Your task to perform on an android device: Show me popular games on the Play Store Image 0: 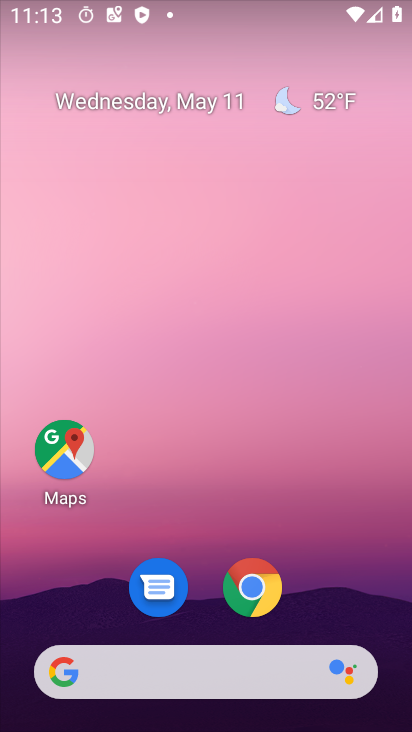
Step 0: drag from (203, 707) to (233, 323)
Your task to perform on an android device: Show me popular games on the Play Store Image 1: 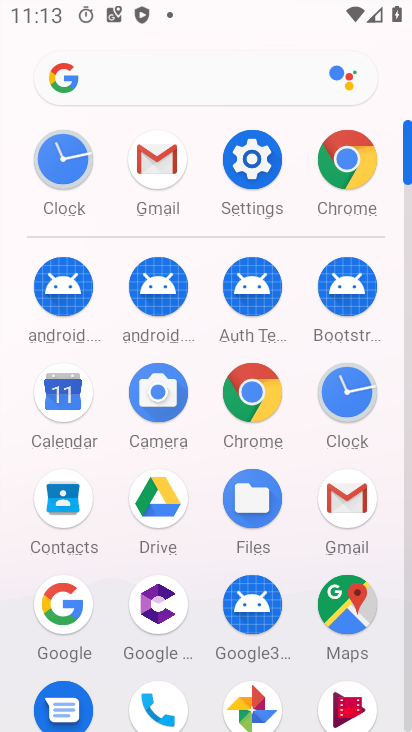
Step 1: drag from (117, 478) to (171, 299)
Your task to perform on an android device: Show me popular games on the Play Store Image 2: 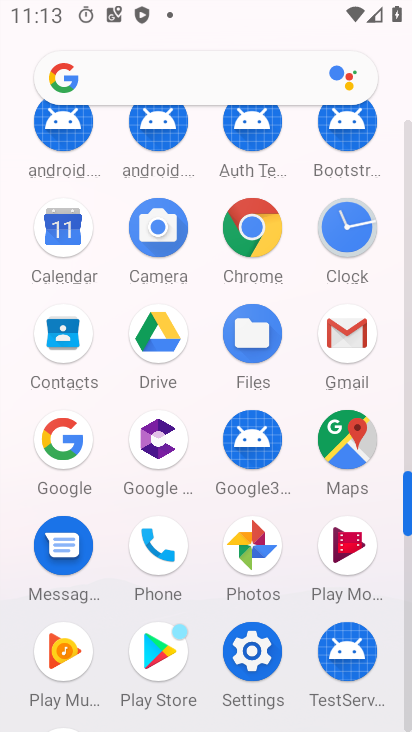
Step 2: click (170, 602)
Your task to perform on an android device: Show me popular games on the Play Store Image 3: 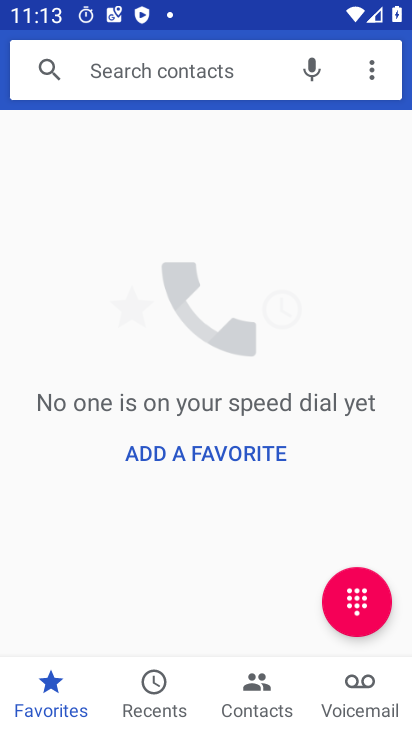
Step 3: press home button
Your task to perform on an android device: Show me popular games on the Play Store Image 4: 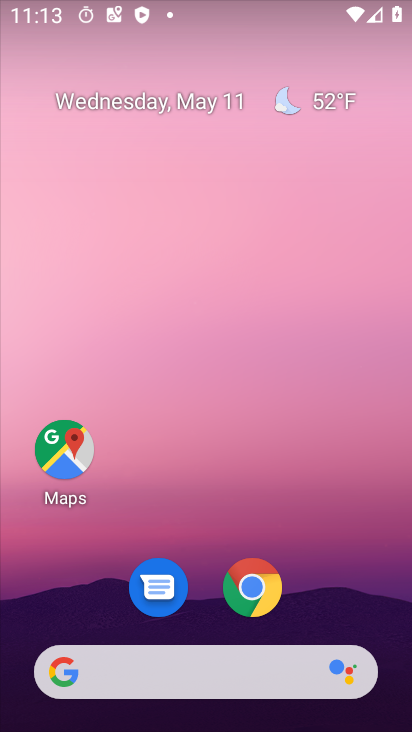
Step 4: drag from (168, 691) to (321, 160)
Your task to perform on an android device: Show me popular games on the Play Store Image 5: 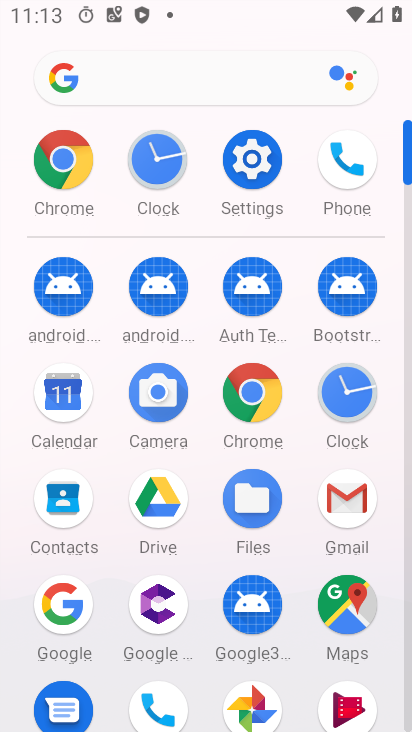
Step 5: drag from (109, 529) to (141, 411)
Your task to perform on an android device: Show me popular games on the Play Store Image 6: 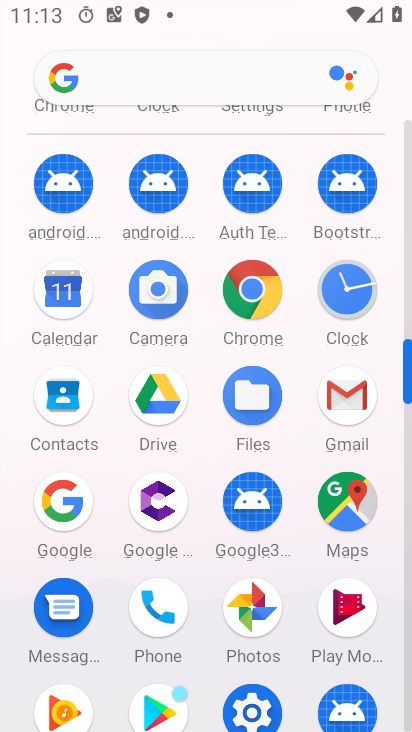
Step 6: click (147, 692)
Your task to perform on an android device: Show me popular games on the Play Store Image 7: 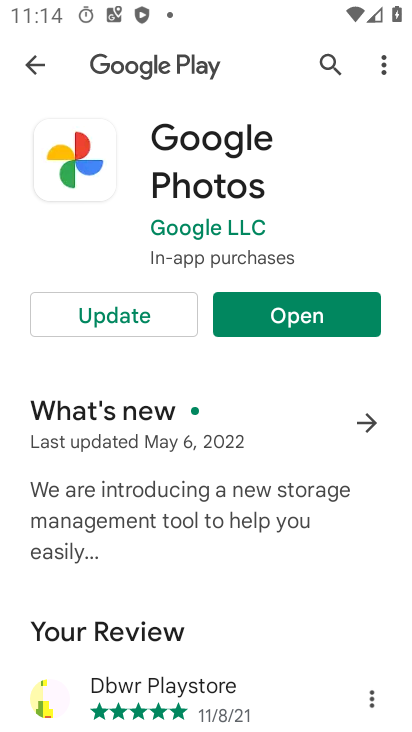
Step 7: click (314, 74)
Your task to perform on an android device: Show me popular games on the Play Store Image 8: 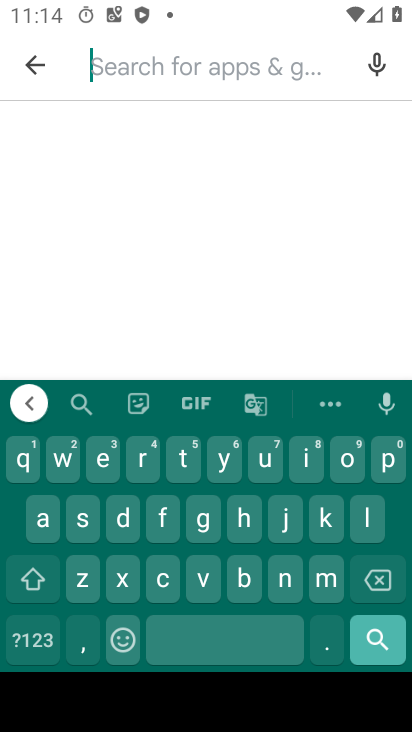
Step 8: click (386, 475)
Your task to perform on an android device: Show me popular games on the Play Store Image 9: 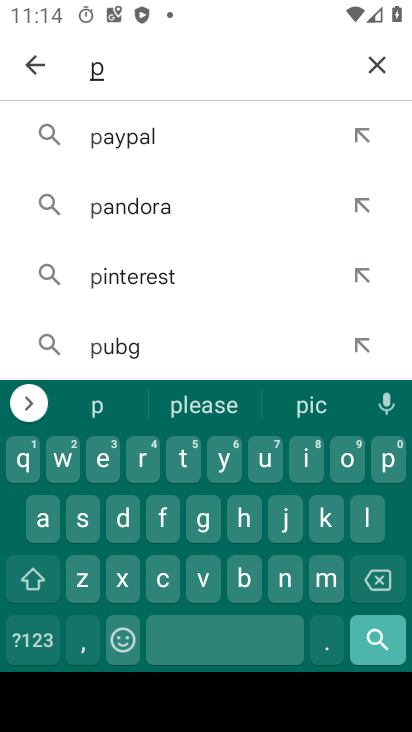
Step 9: click (348, 470)
Your task to perform on an android device: Show me popular games on the Play Store Image 10: 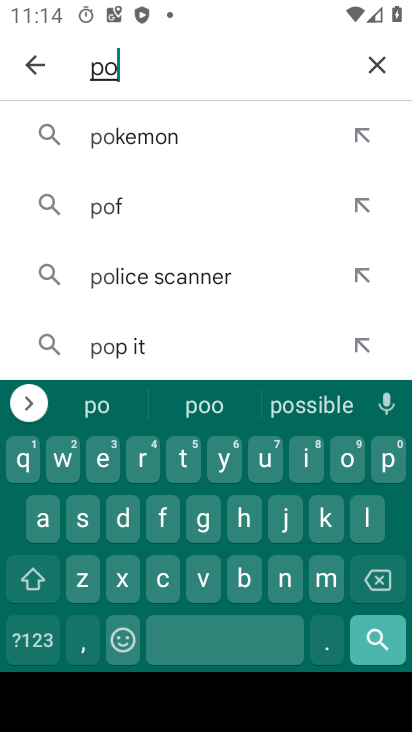
Step 10: click (385, 471)
Your task to perform on an android device: Show me popular games on the Play Store Image 11: 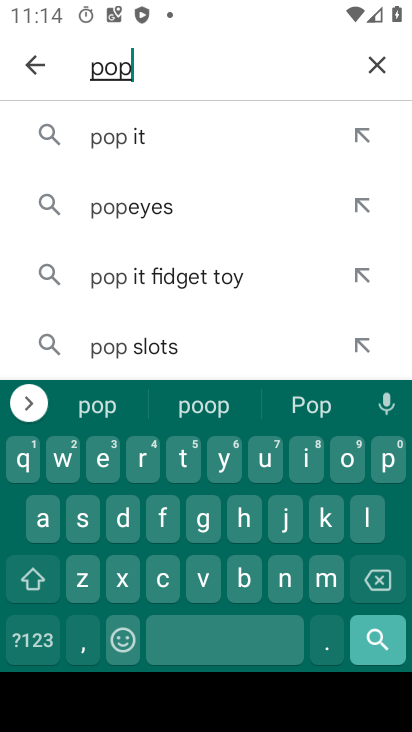
Step 11: click (259, 466)
Your task to perform on an android device: Show me popular games on the Play Store Image 12: 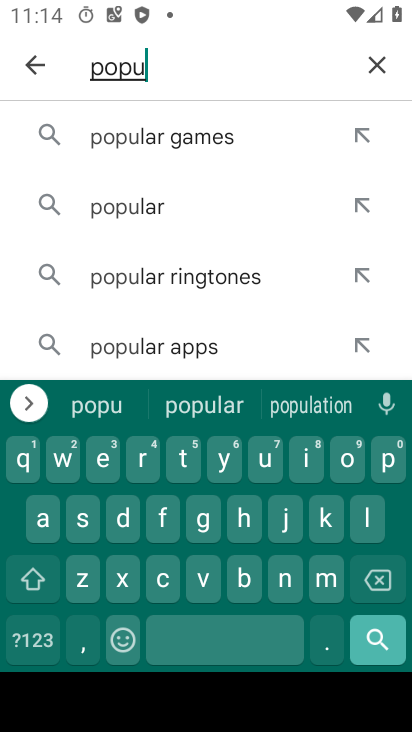
Step 12: click (196, 138)
Your task to perform on an android device: Show me popular games on the Play Store Image 13: 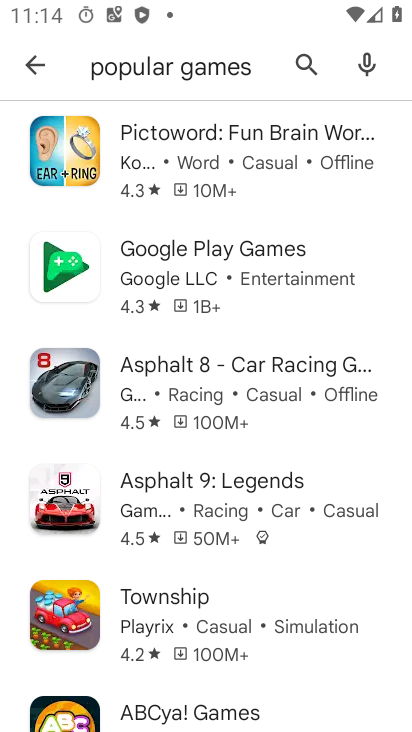
Step 13: task complete